Your task to perform on an android device: turn on improve location accuracy Image 0: 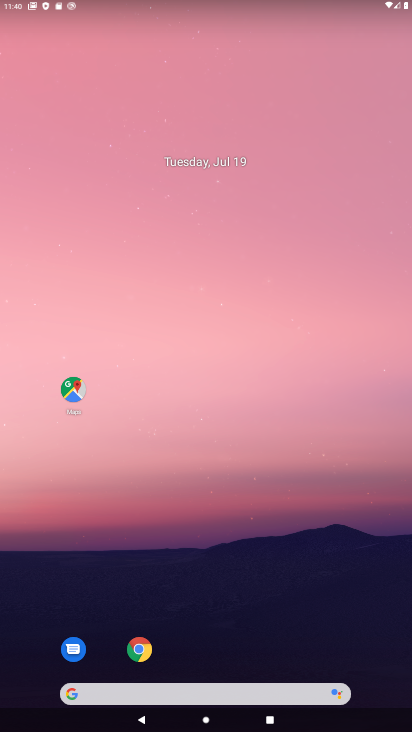
Step 0: drag from (239, 637) to (210, 26)
Your task to perform on an android device: turn on improve location accuracy Image 1: 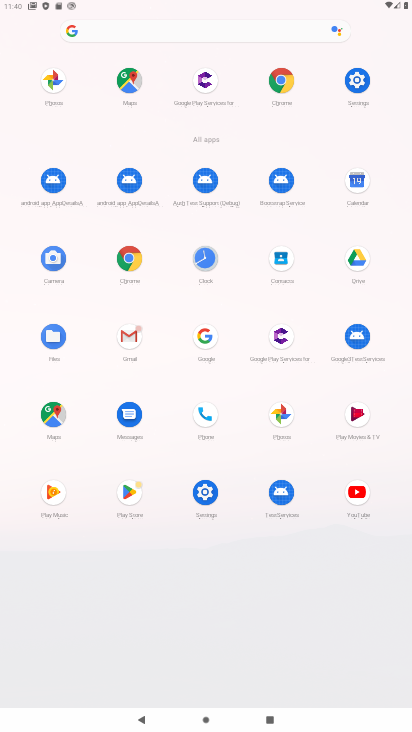
Step 1: click (354, 77)
Your task to perform on an android device: turn on improve location accuracy Image 2: 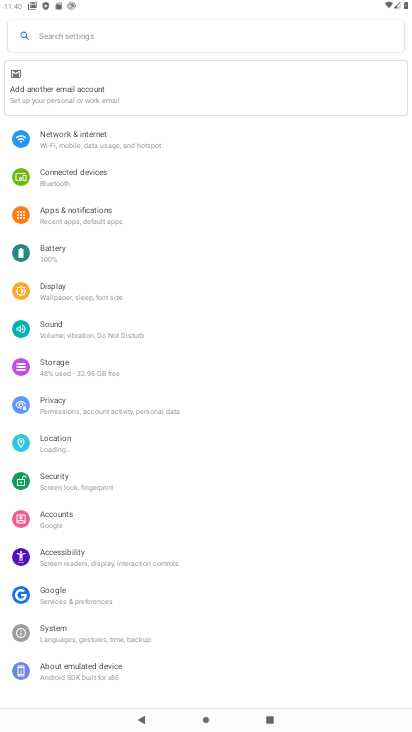
Step 2: click (58, 292)
Your task to perform on an android device: turn on improve location accuracy Image 3: 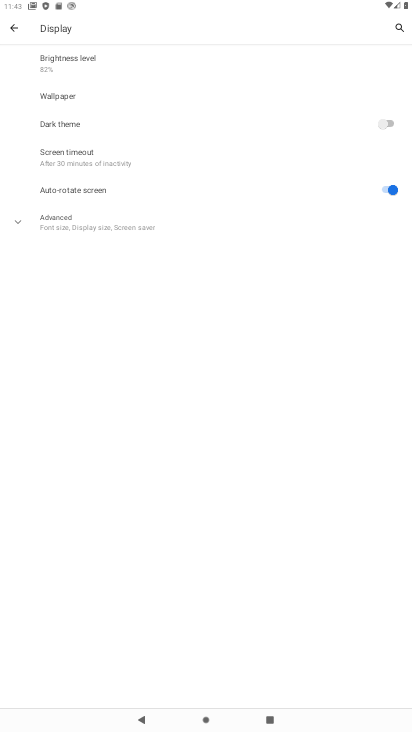
Step 3: press back button
Your task to perform on an android device: turn on improve location accuracy Image 4: 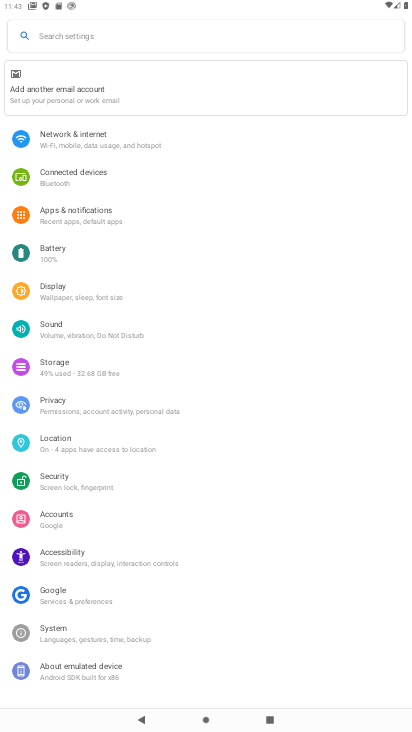
Step 4: press back button
Your task to perform on an android device: turn on improve location accuracy Image 5: 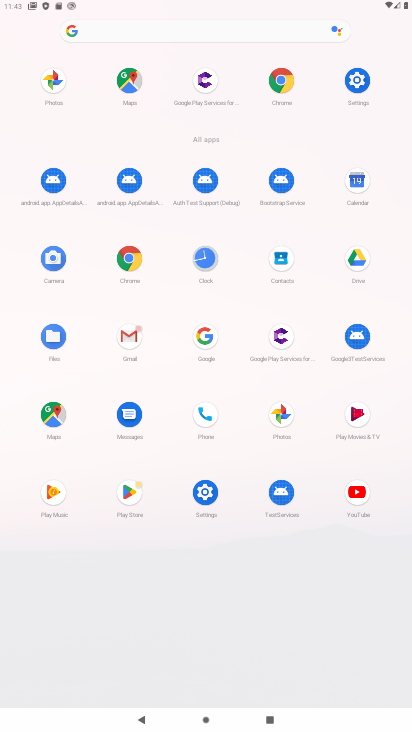
Step 5: click (205, 495)
Your task to perform on an android device: turn on improve location accuracy Image 6: 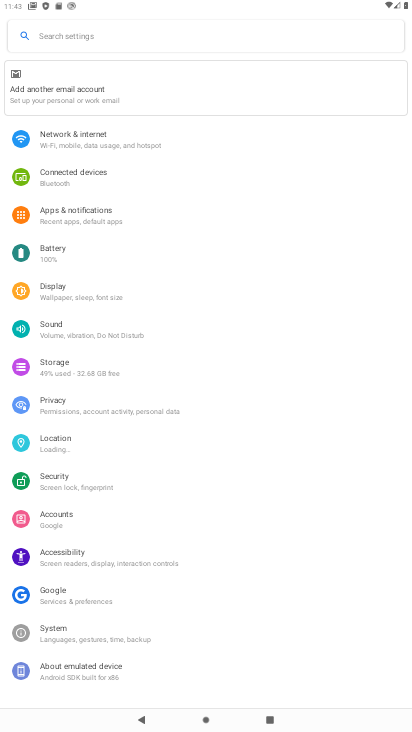
Step 6: click (59, 441)
Your task to perform on an android device: turn on improve location accuracy Image 7: 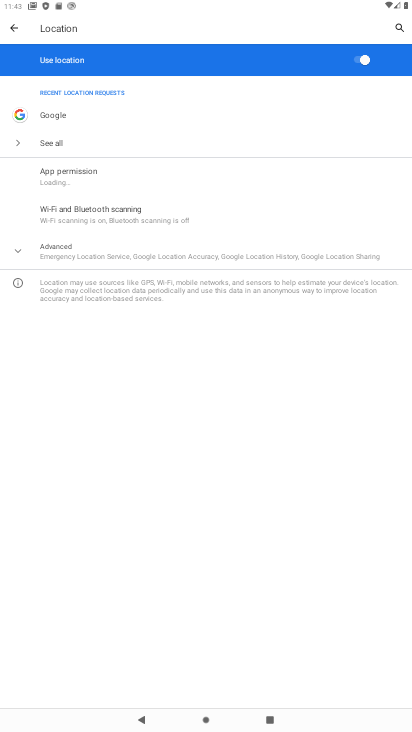
Step 7: click (104, 260)
Your task to perform on an android device: turn on improve location accuracy Image 8: 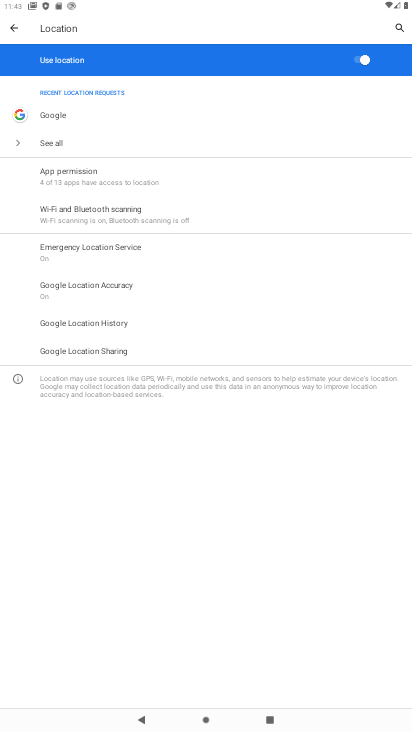
Step 8: click (125, 277)
Your task to perform on an android device: turn on improve location accuracy Image 9: 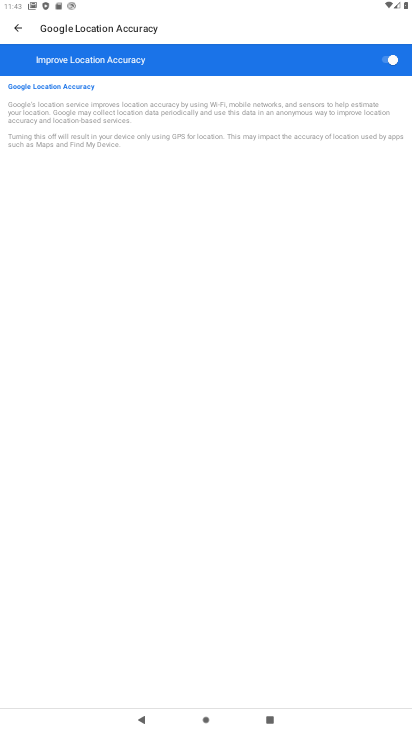
Step 9: task complete